Your task to perform on an android device: turn on airplane mode Image 0: 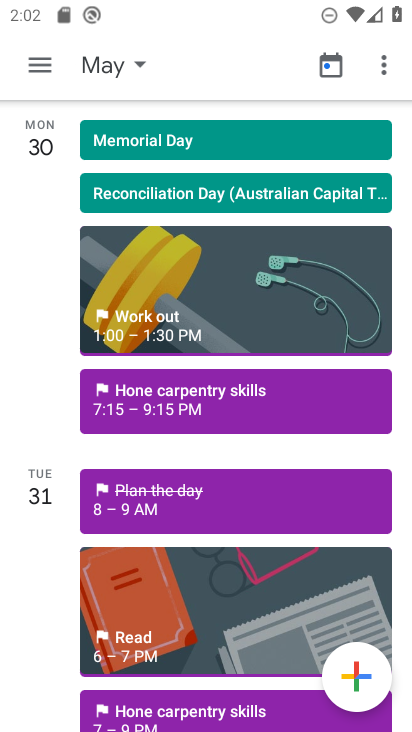
Step 0: press home button
Your task to perform on an android device: turn on airplane mode Image 1: 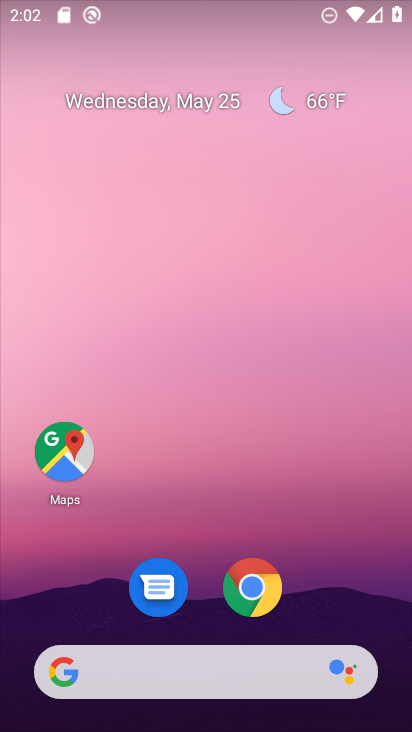
Step 1: drag from (367, 577) to (367, 264)
Your task to perform on an android device: turn on airplane mode Image 2: 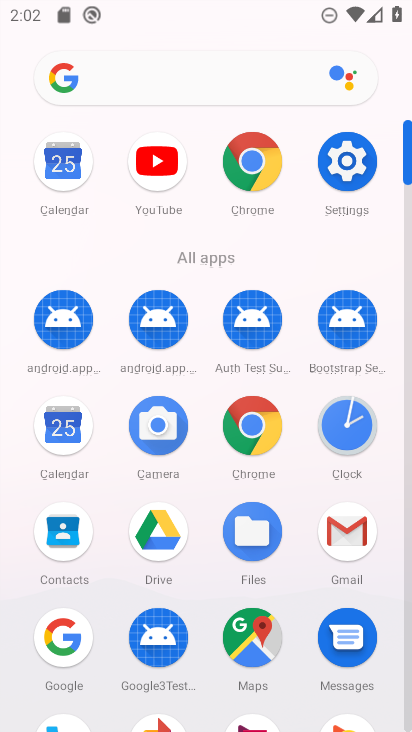
Step 2: click (362, 165)
Your task to perform on an android device: turn on airplane mode Image 3: 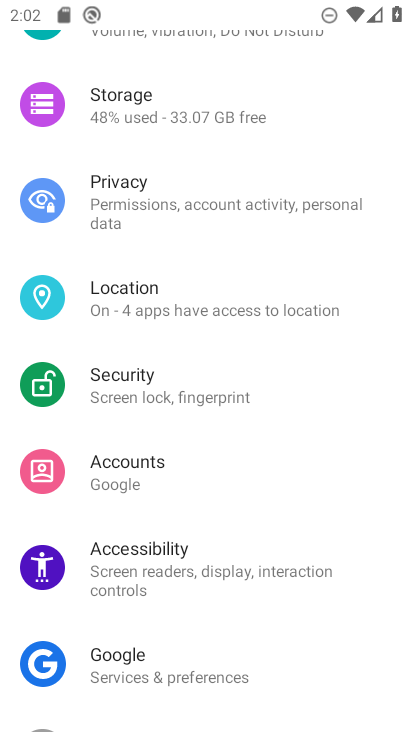
Step 3: drag from (350, 590) to (355, 440)
Your task to perform on an android device: turn on airplane mode Image 4: 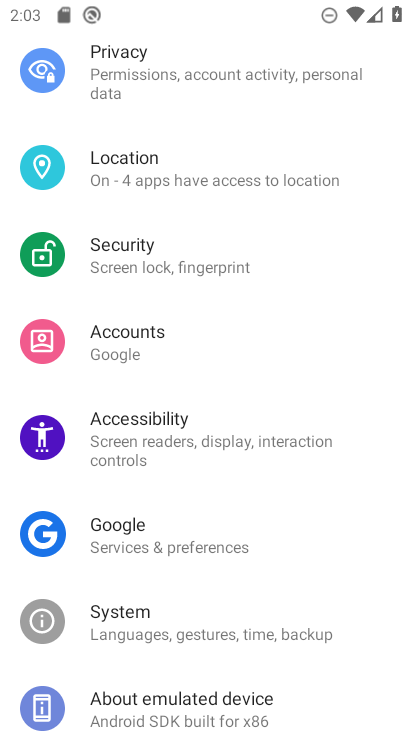
Step 4: drag from (343, 627) to (349, 484)
Your task to perform on an android device: turn on airplane mode Image 5: 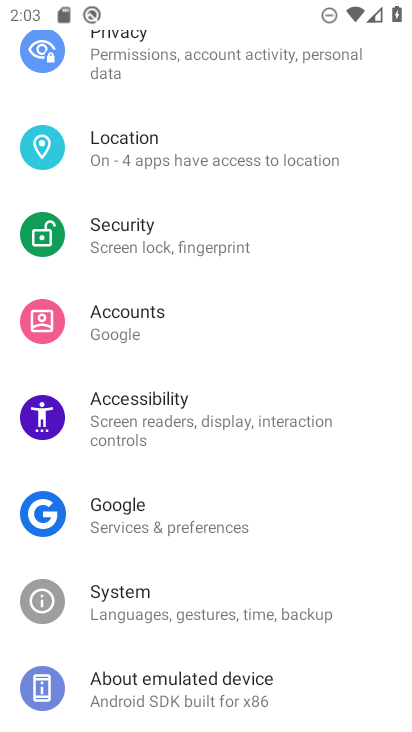
Step 5: drag from (333, 392) to (336, 500)
Your task to perform on an android device: turn on airplane mode Image 6: 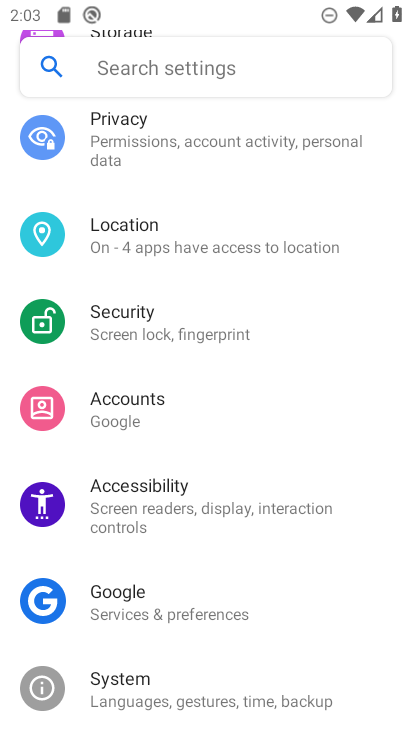
Step 6: drag from (340, 364) to (345, 458)
Your task to perform on an android device: turn on airplane mode Image 7: 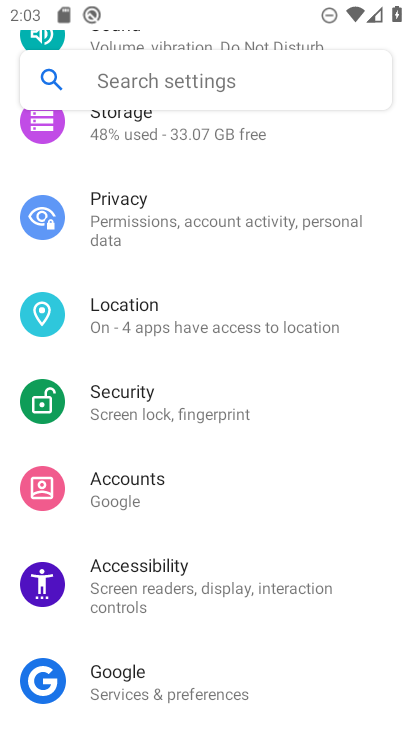
Step 7: drag from (342, 302) to (346, 409)
Your task to perform on an android device: turn on airplane mode Image 8: 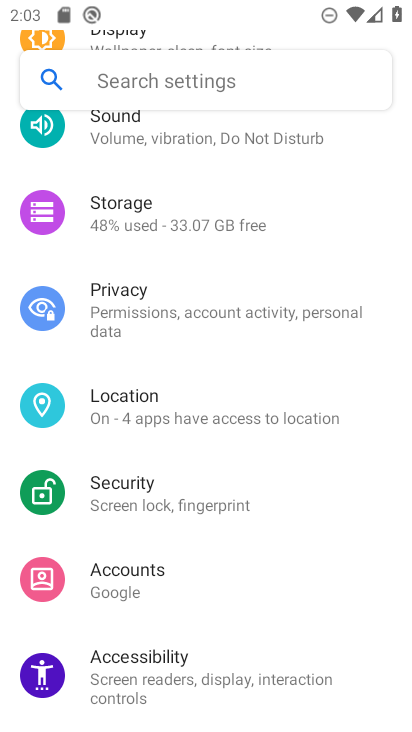
Step 8: drag from (353, 278) to (358, 362)
Your task to perform on an android device: turn on airplane mode Image 9: 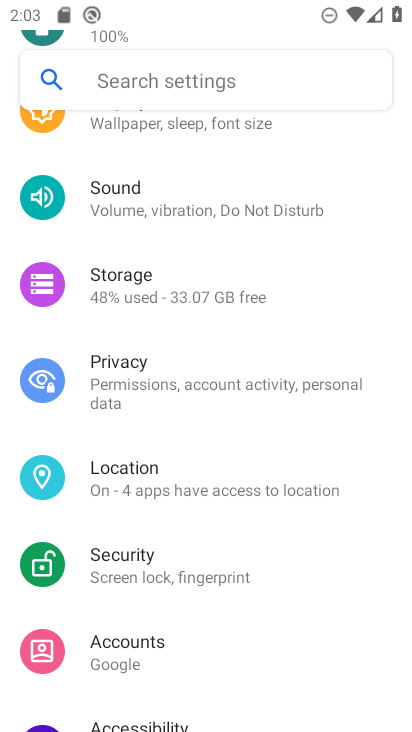
Step 9: drag from (358, 244) to (365, 353)
Your task to perform on an android device: turn on airplane mode Image 10: 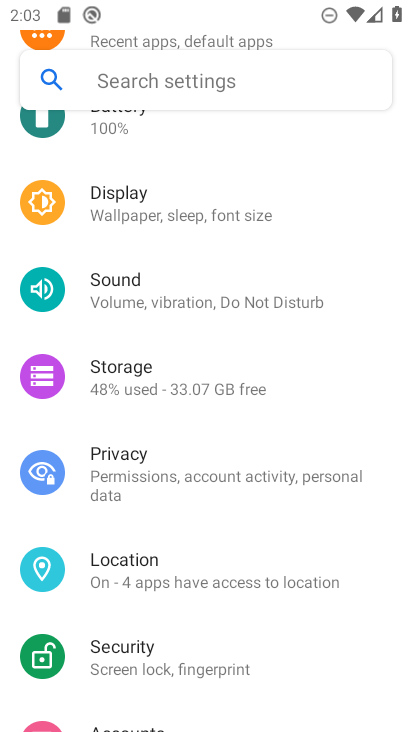
Step 10: drag from (352, 238) to (366, 358)
Your task to perform on an android device: turn on airplane mode Image 11: 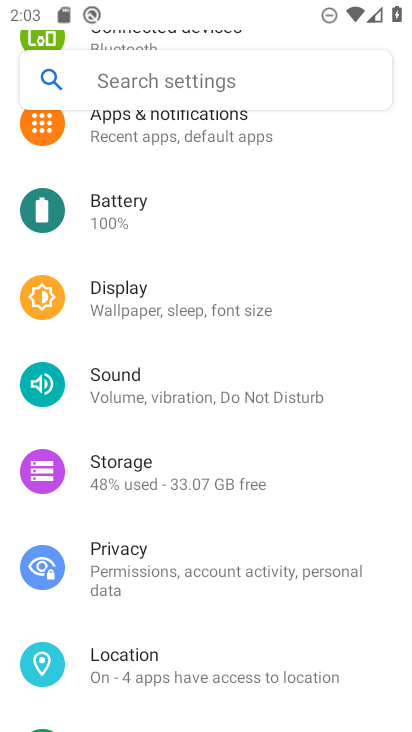
Step 11: drag from (346, 249) to (346, 343)
Your task to perform on an android device: turn on airplane mode Image 12: 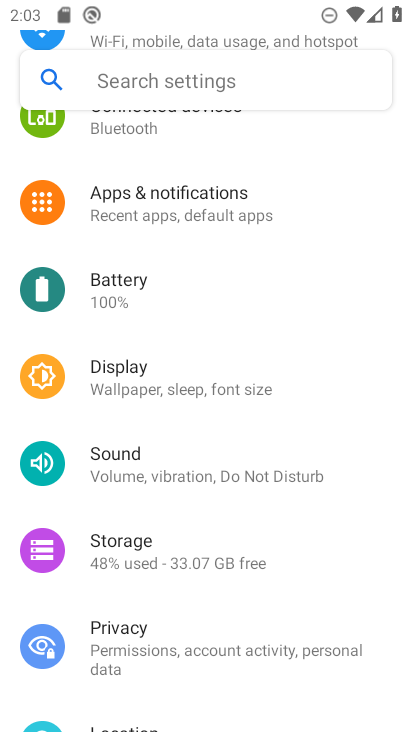
Step 12: drag from (331, 217) to (338, 320)
Your task to perform on an android device: turn on airplane mode Image 13: 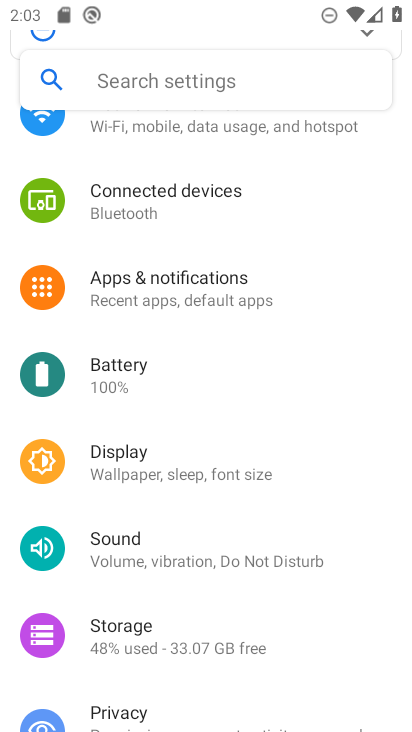
Step 13: drag from (337, 219) to (339, 291)
Your task to perform on an android device: turn on airplane mode Image 14: 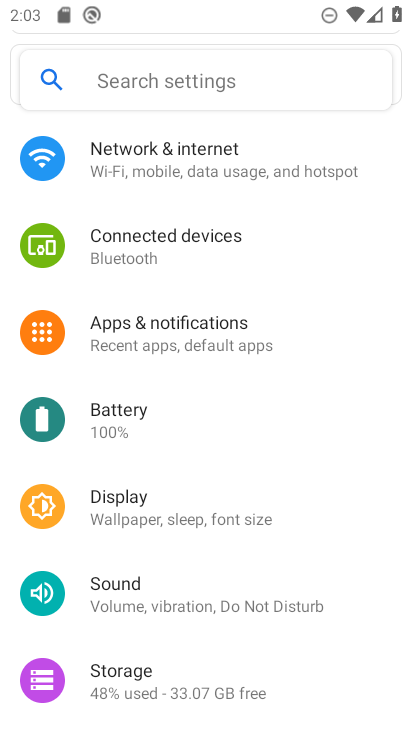
Step 14: click (265, 154)
Your task to perform on an android device: turn on airplane mode Image 15: 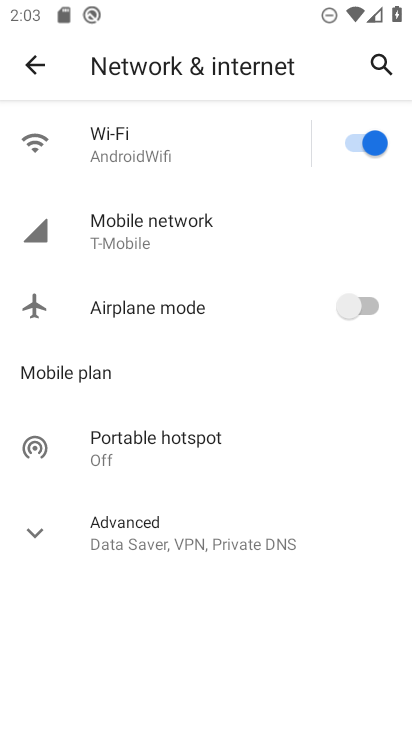
Step 15: click (341, 324)
Your task to perform on an android device: turn on airplane mode Image 16: 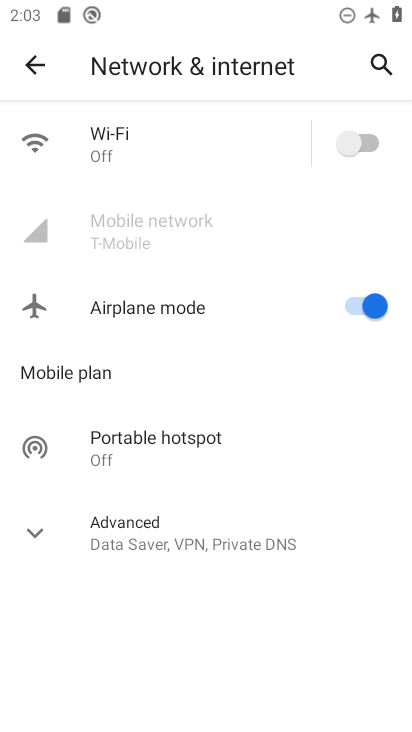
Step 16: task complete